Your task to perform on an android device: move an email to a new category in the gmail app Image 0: 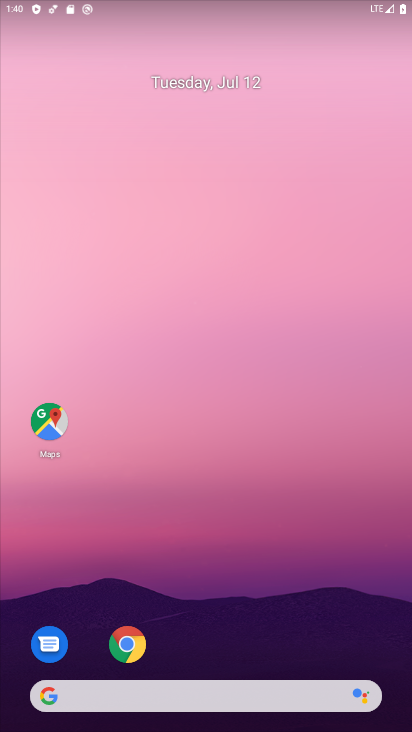
Step 0: drag from (218, 680) to (140, 63)
Your task to perform on an android device: move an email to a new category in the gmail app Image 1: 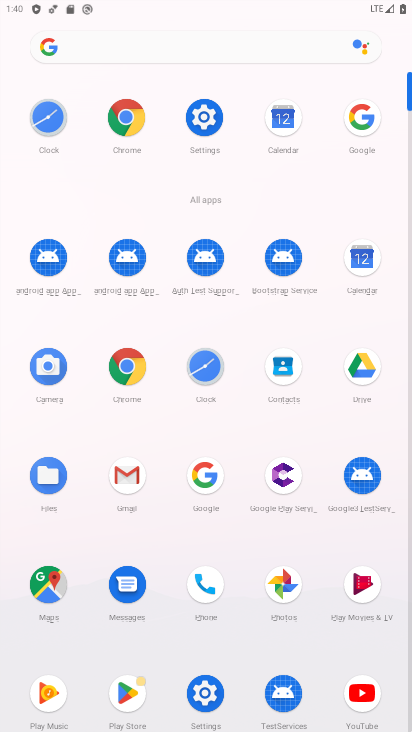
Step 1: click (128, 470)
Your task to perform on an android device: move an email to a new category in the gmail app Image 2: 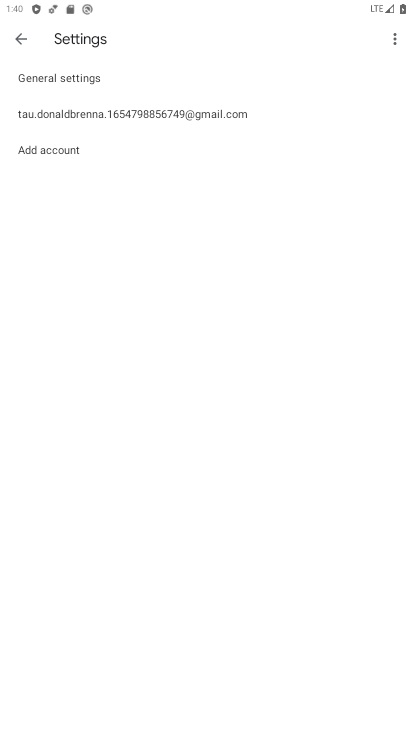
Step 2: click (22, 47)
Your task to perform on an android device: move an email to a new category in the gmail app Image 3: 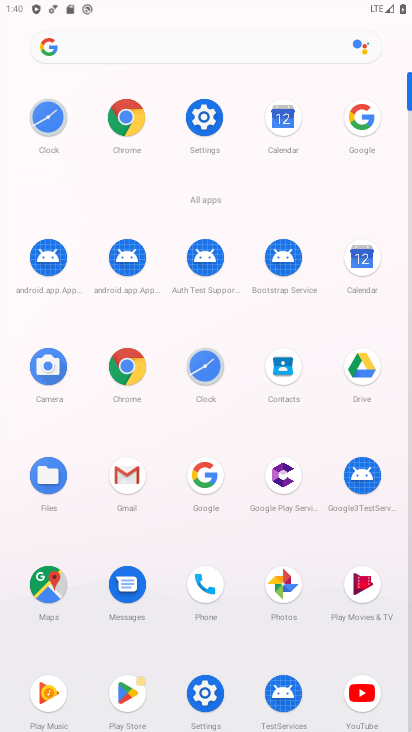
Step 3: click (125, 484)
Your task to perform on an android device: move an email to a new category in the gmail app Image 4: 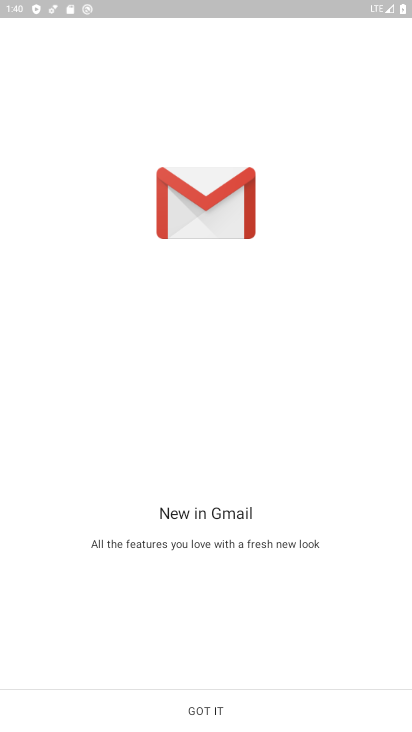
Step 4: click (180, 710)
Your task to perform on an android device: move an email to a new category in the gmail app Image 5: 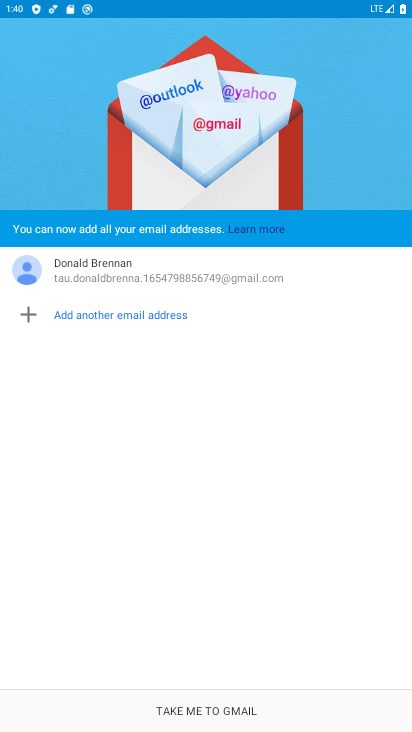
Step 5: click (178, 708)
Your task to perform on an android device: move an email to a new category in the gmail app Image 6: 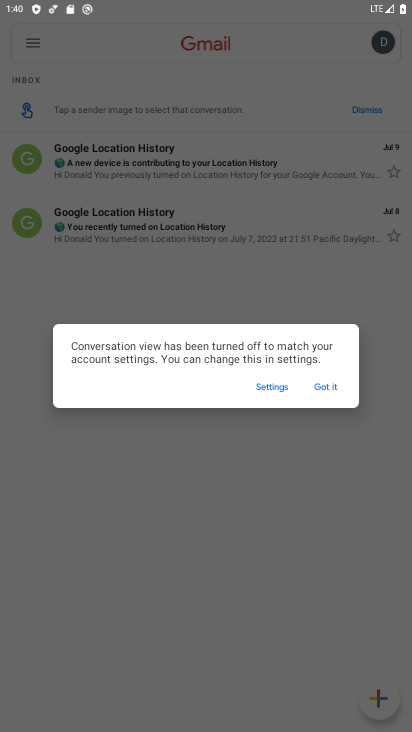
Step 6: click (336, 388)
Your task to perform on an android device: move an email to a new category in the gmail app Image 7: 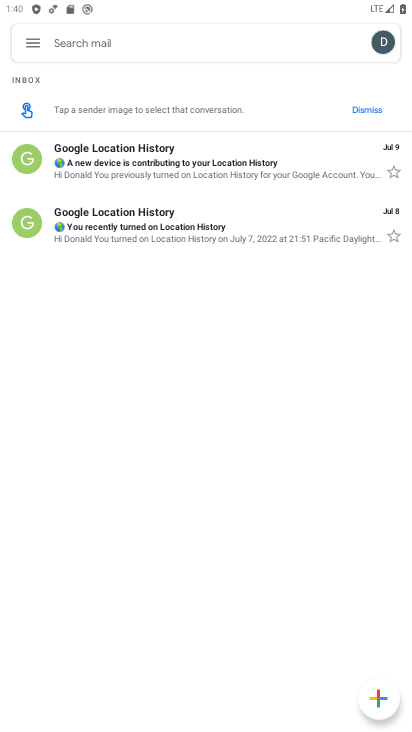
Step 7: click (191, 161)
Your task to perform on an android device: move an email to a new category in the gmail app Image 8: 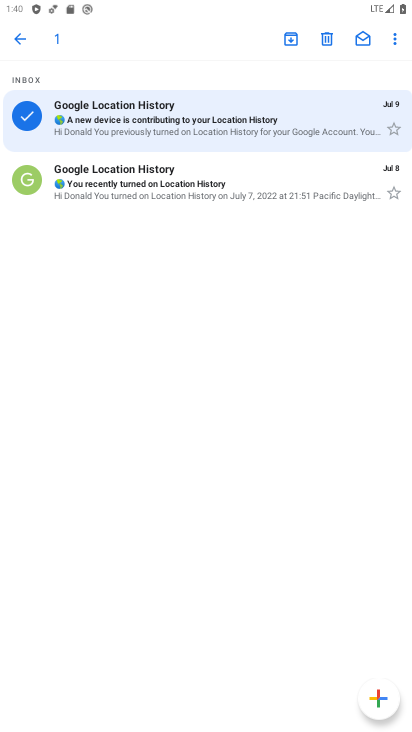
Step 8: click (385, 34)
Your task to perform on an android device: move an email to a new category in the gmail app Image 9: 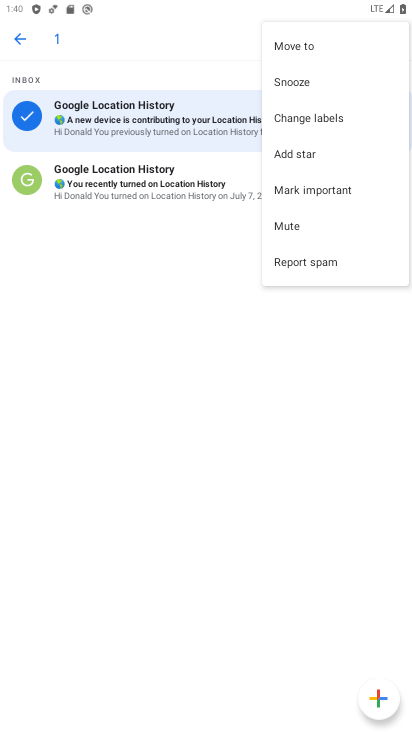
Step 9: click (294, 51)
Your task to perform on an android device: move an email to a new category in the gmail app Image 10: 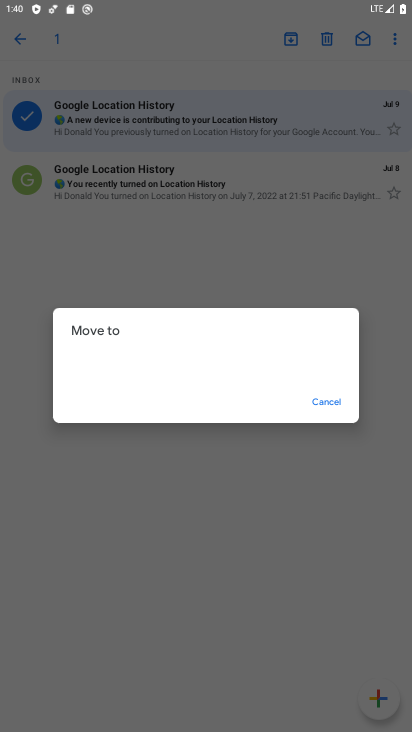
Step 10: task complete